Your task to perform on an android device: Open Youtube and go to the subscriptions tab Image 0: 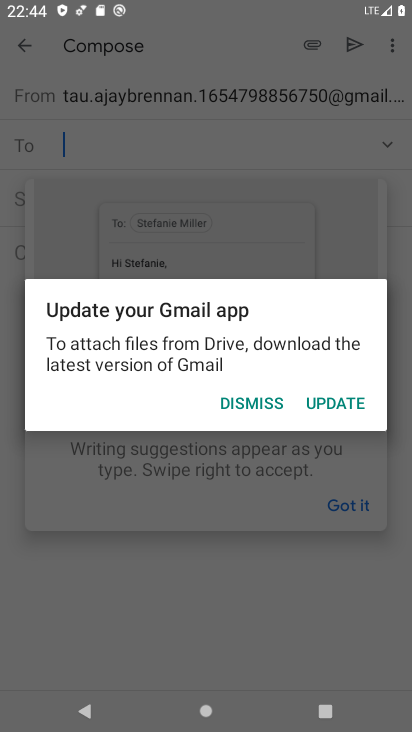
Step 0: press home button
Your task to perform on an android device: Open Youtube and go to the subscriptions tab Image 1: 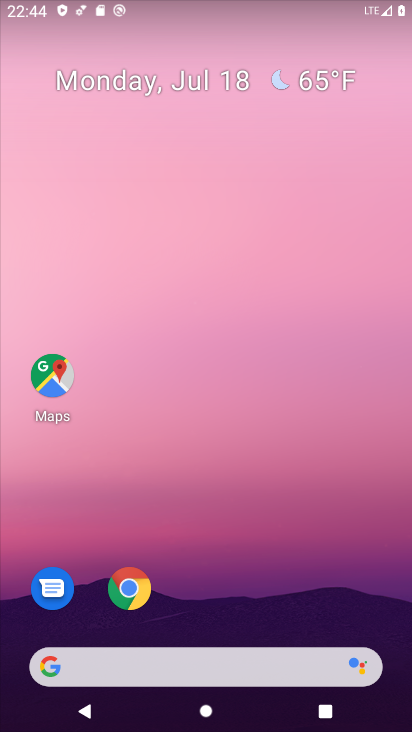
Step 1: drag from (300, 581) to (411, 477)
Your task to perform on an android device: Open Youtube and go to the subscriptions tab Image 2: 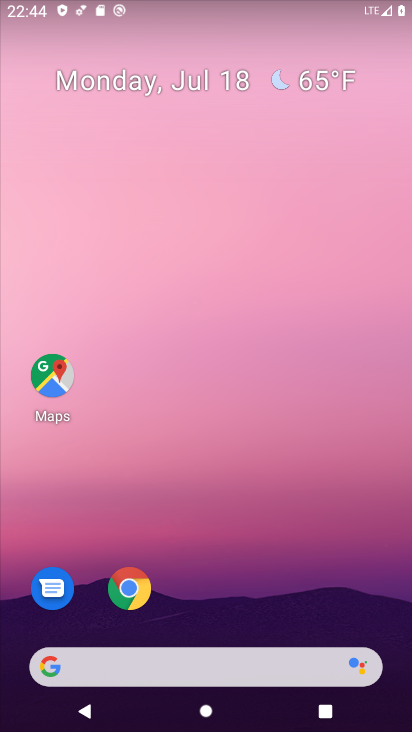
Step 2: drag from (297, 599) to (279, 108)
Your task to perform on an android device: Open Youtube and go to the subscriptions tab Image 3: 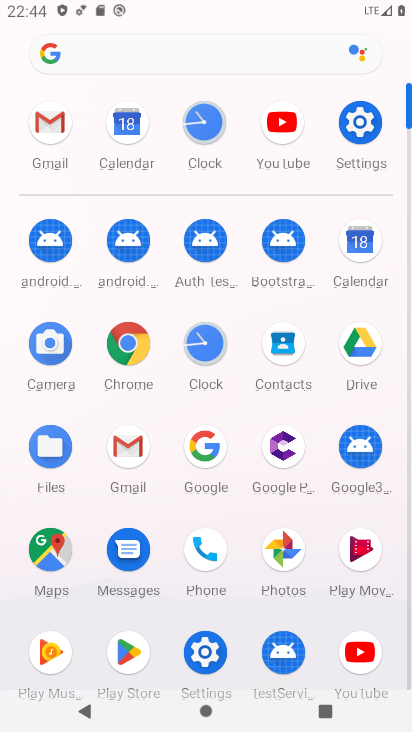
Step 3: click (356, 663)
Your task to perform on an android device: Open Youtube and go to the subscriptions tab Image 4: 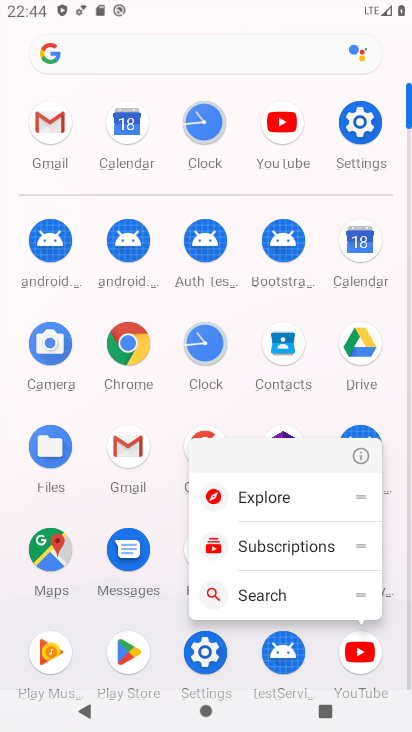
Step 4: click (363, 660)
Your task to perform on an android device: Open Youtube and go to the subscriptions tab Image 5: 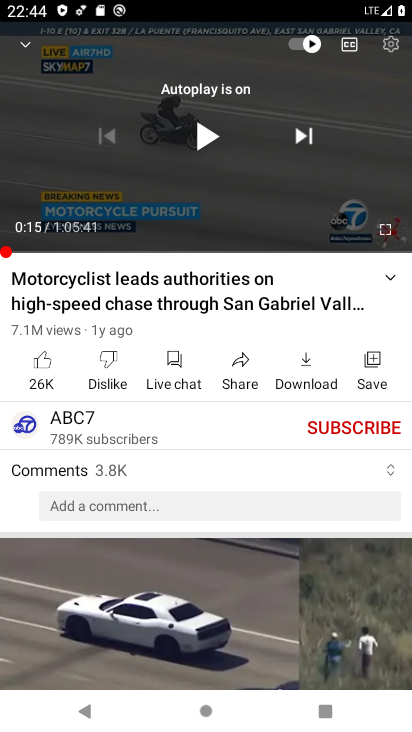
Step 5: press back button
Your task to perform on an android device: Open Youtube and go to the subscriptions tab Image 6: 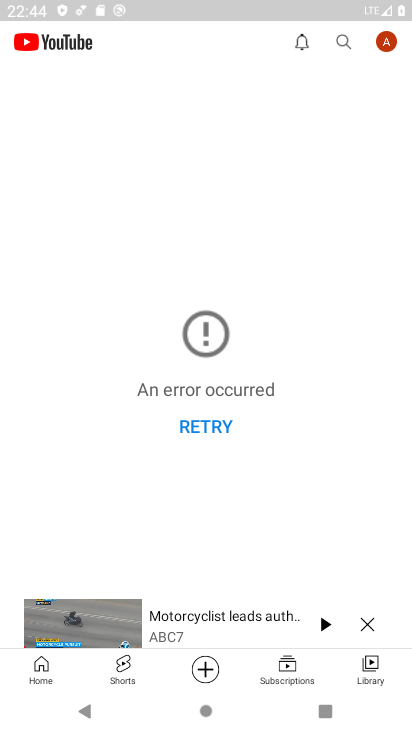
Step 6: click (286, 666)
Your task to perform on an android device: Open Youtube and go to the subscriptions tab Image 7: 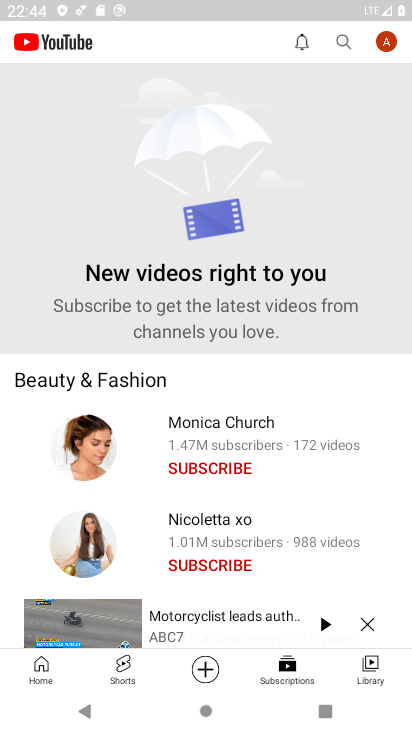
Step 7: task complete